Your task to perform on an android device: Open Google Maps Image 0: 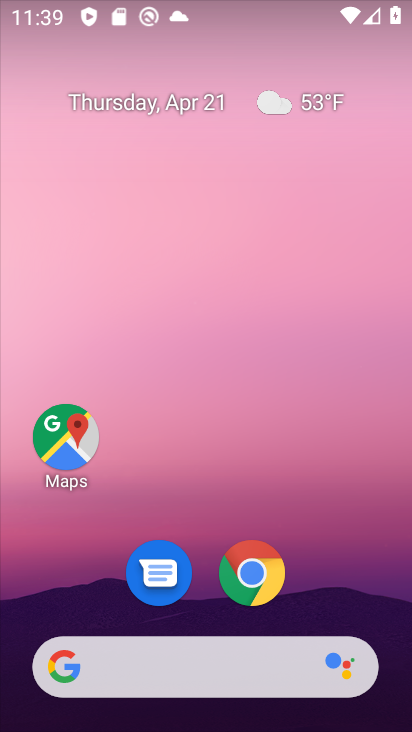
Step 0: drag from (302, 291) to (327, 216)
Your task to perform on an android device: Open Google Maps Image 1: 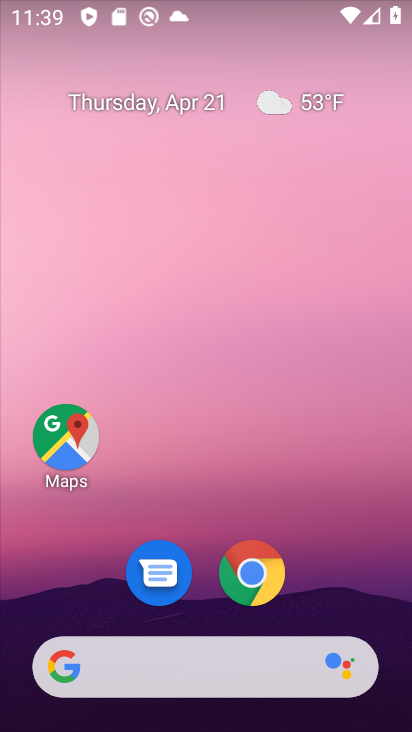
Step 1: drag from (194, 624) to (307, 275)
Your task to perform on an android device: Open Google Maps Image 2: 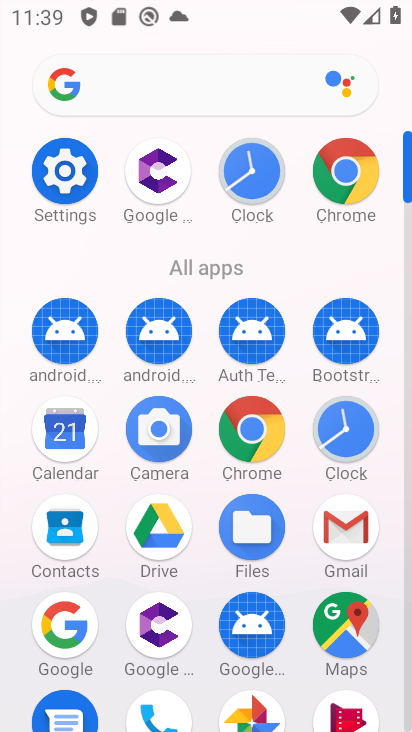
Step 2: click (346, 621)
Your task to perform on an android device: Open Google Maps Image 3: 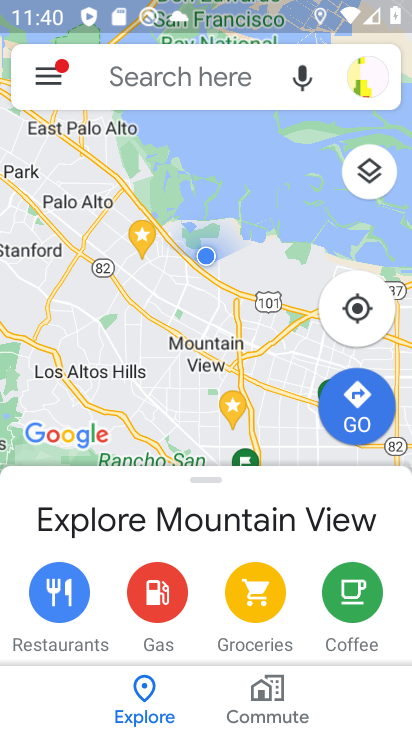
Step 3: task complete